Your task to perform on an android device: Clear the shopping cart on walmart. Image 0: 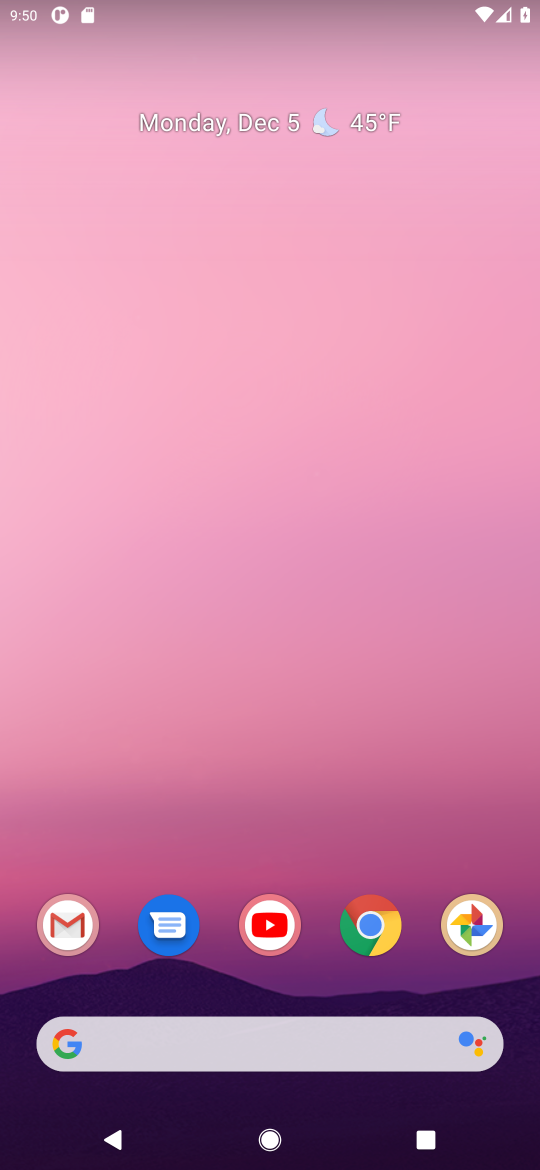
Step 0: click (368, 933)
Your task to perform on an android device: Clear the shopping cart on walmart. Image 1: 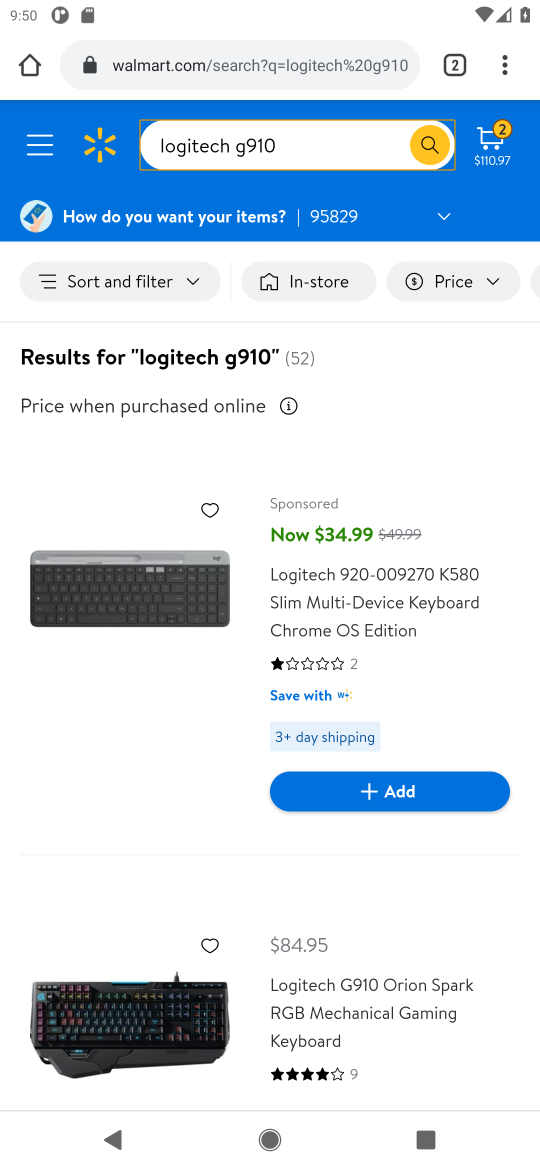
Step 1: click (488, 149)
Your task to perform on an android device: Clear the shopping cart on walmart. Image 2: 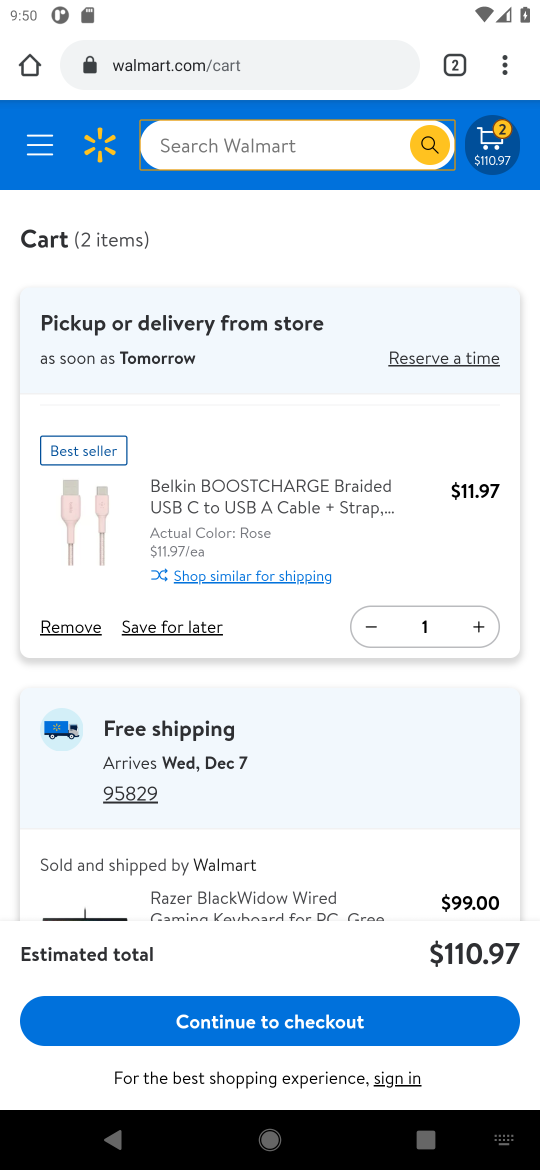
Step 2: click (65, 624)
Your task to perform on an android device: Clear the shopping cart on walmart. Image 3: 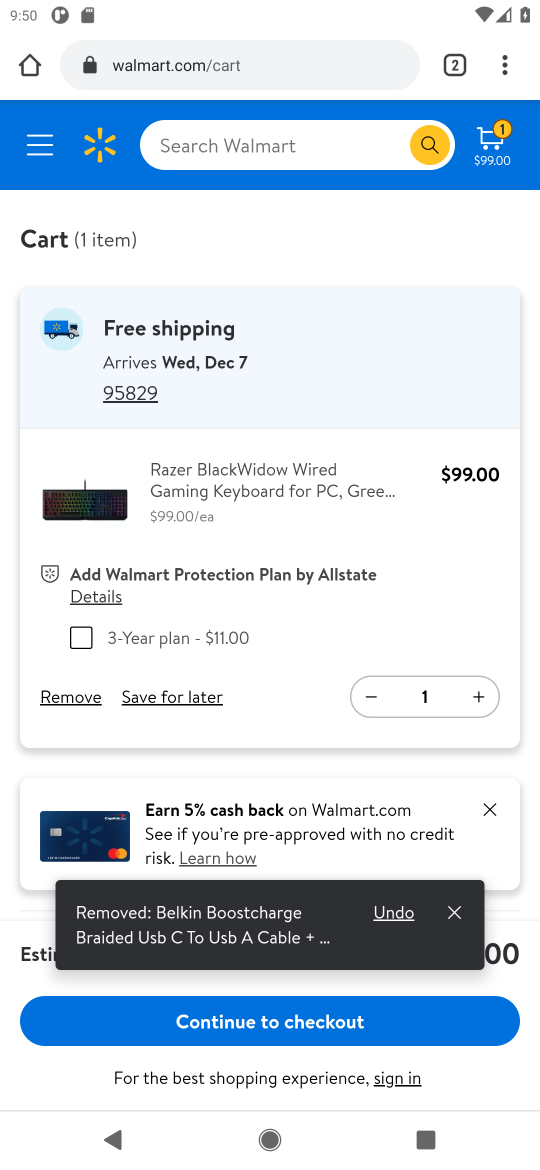
Step 3: click (55, 698)
Your task to perform on an android device: Clear the shopping cart on walmart. Image 4: 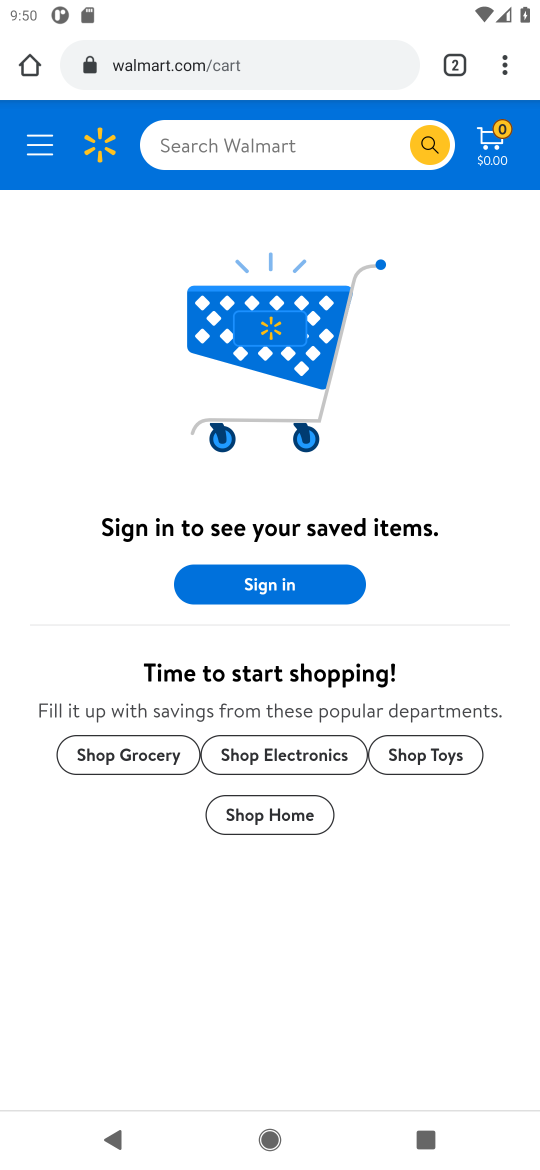
Step 4: task complete